Your task to perform on an android device: clear history in the chrome app Image 0: 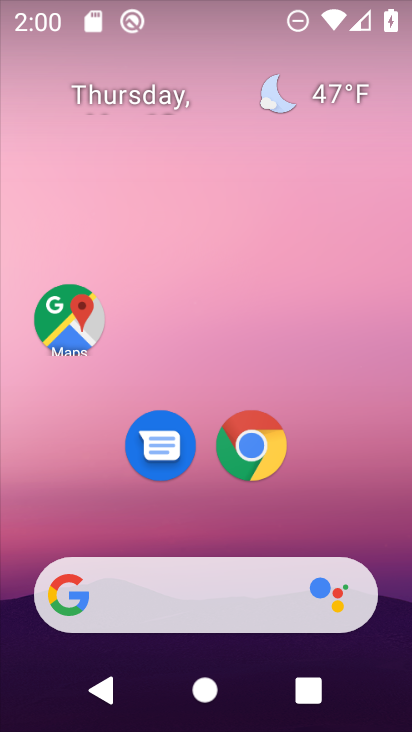
Step 0: click (255, 469)
Your task to perform on an android device: clear history in the chrome app Image 1: 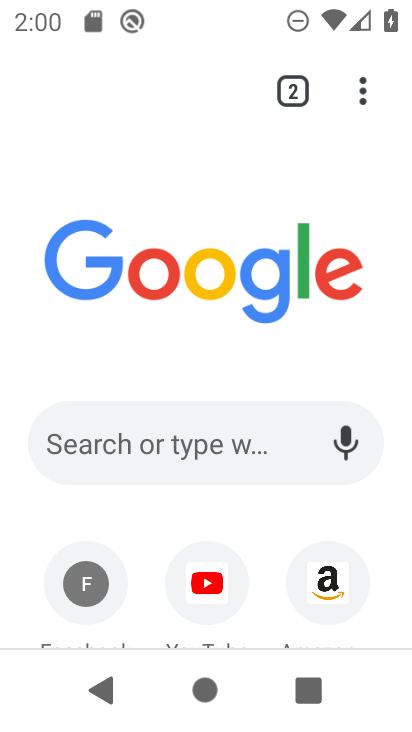
Step 1: task complete